Your task to perform on an android device: Turn off the flashlight Image 0: 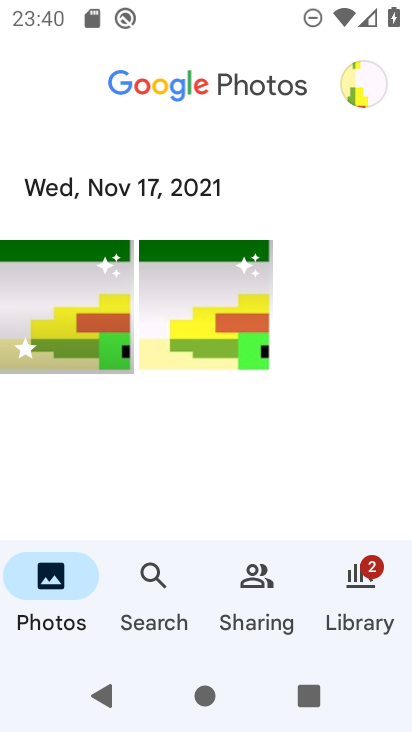
Step 0: drag from (230, 2) to (141, 460)
Your task to perform on an android device: Turn off the flashlight Image 1: 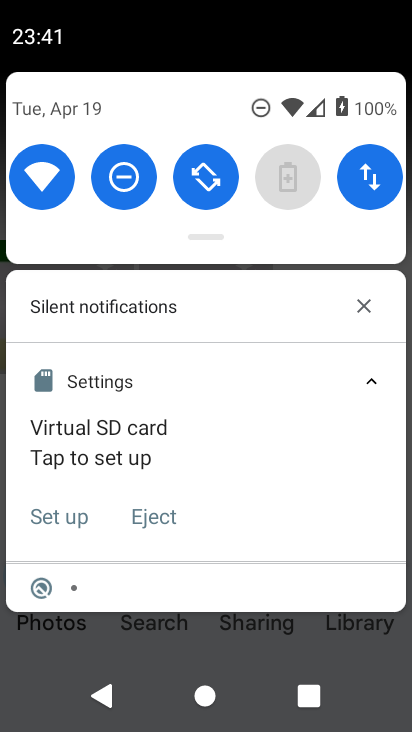
Step 1: task complete